Your task to perform on an android device: turn off location Image 0: 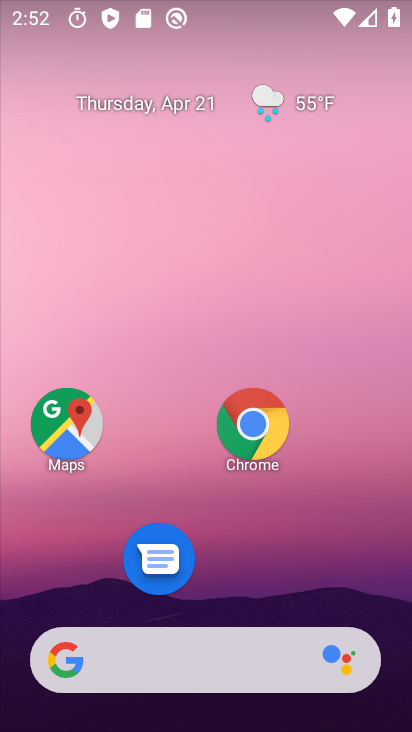
Step 0: drag from (275, 550) to (206, 125)
Your task to perform on an android device: turn off location Image 1: 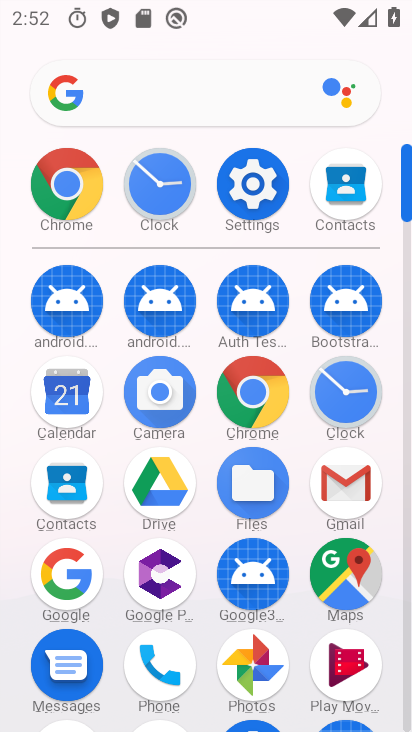
Step 1: click (258, 186)
Your task to perform on an android device: turn off location Image 2: 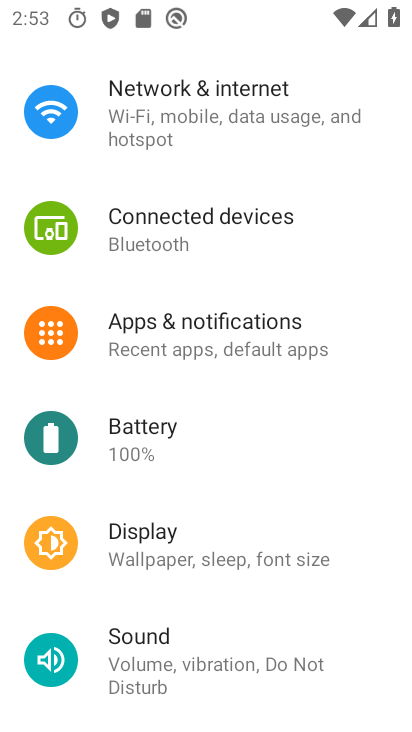
Step 2: drag from (210, 251) to (227, 13)
Your task to perform on an android device: turn off location Image 3: 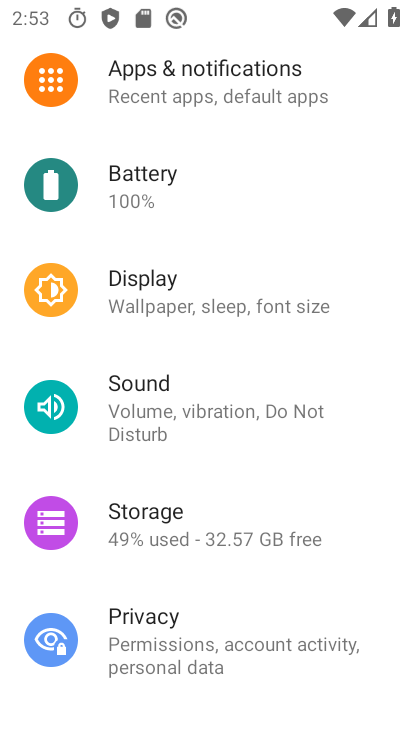
Step 3: drag from (232, 572) to (239, 339)
Your task to perform on an android device: turn off location Image 4: 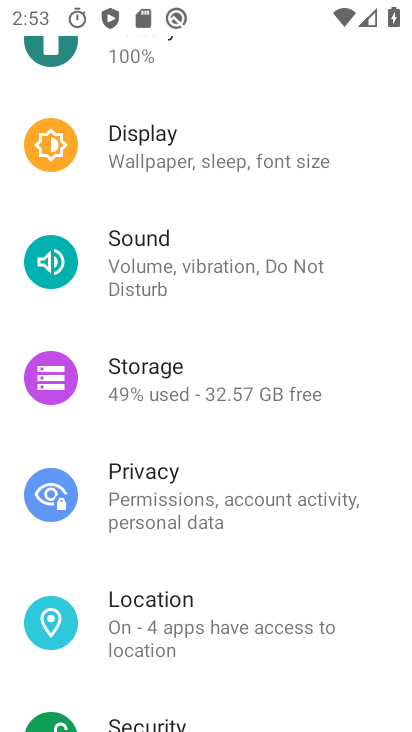
Step 4: click (164, 626)
Your task to perform on an android device: turn off location Image 5: 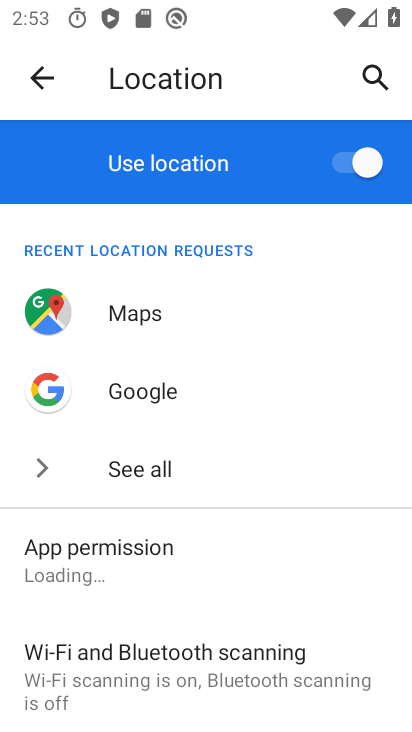
Step 5: click (366, 163)
Your task to perform on an android device: turn off location Image 6: 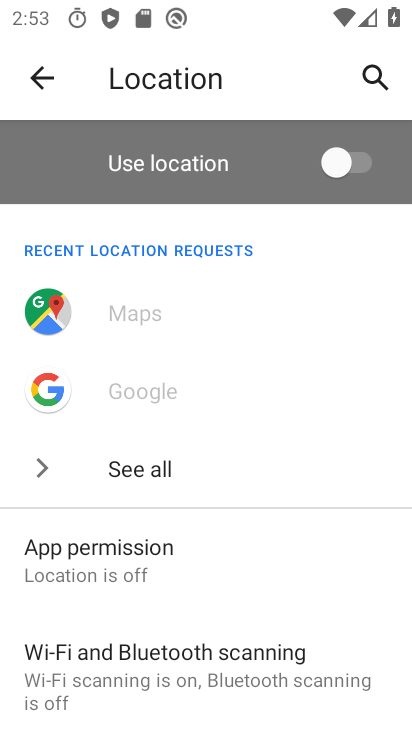
Step 6: task complete